Your task to perform on an android device: toggle translation in the chrome app Image 0: 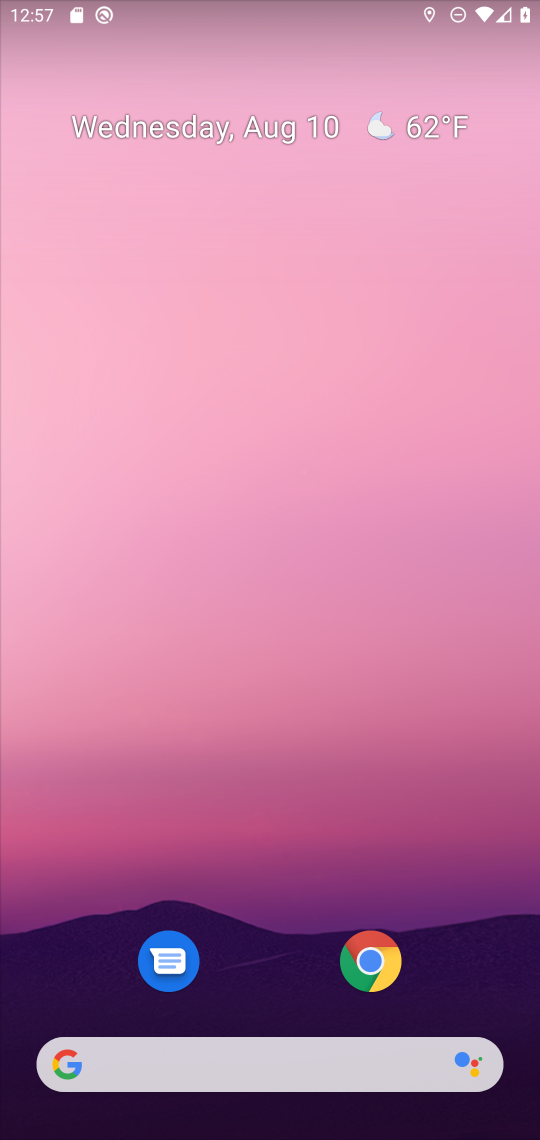
Step 0: click (378, 963)
Your task to perform on an android device: toggle translation in the chrome app Image 1: 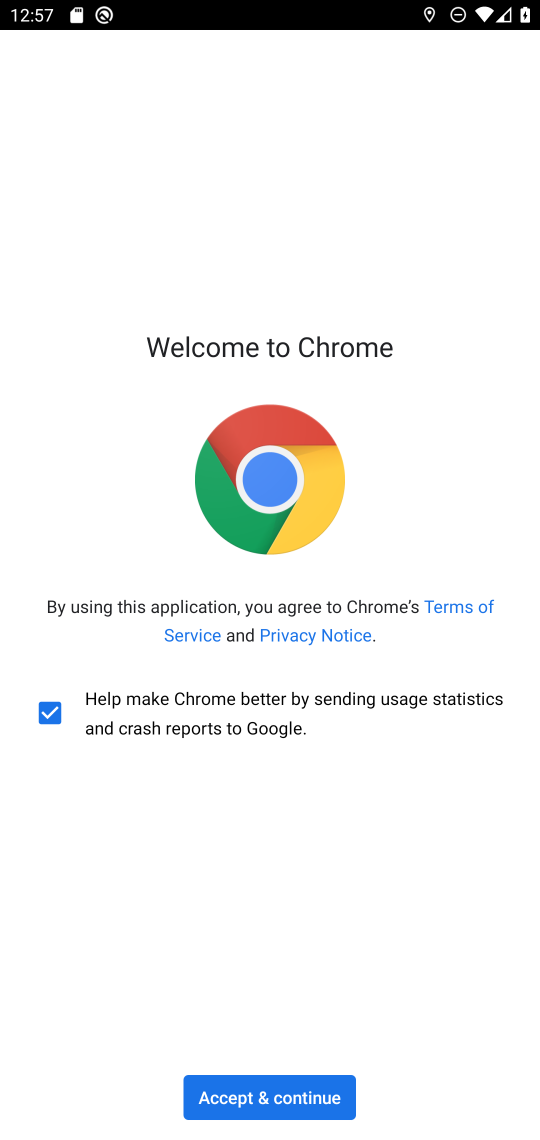
Step 1: click (278, 1095)
Your task to perform on an android device: toggle translation in the chrome app Image 2: 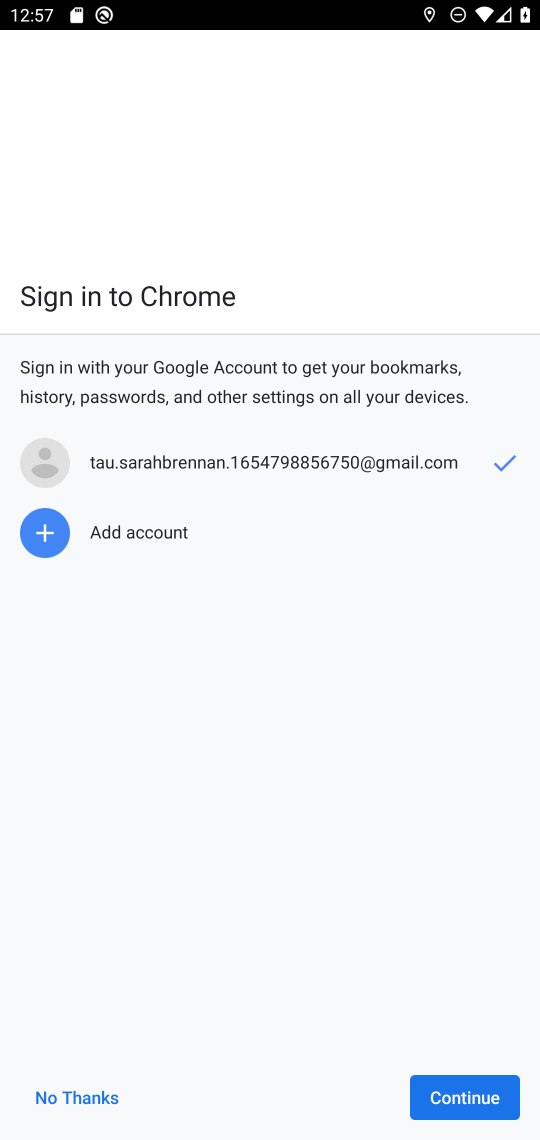
Step 2: click (449, 1105)
Your task to perform on an android device: toggle translation in the chrome app Image 3: 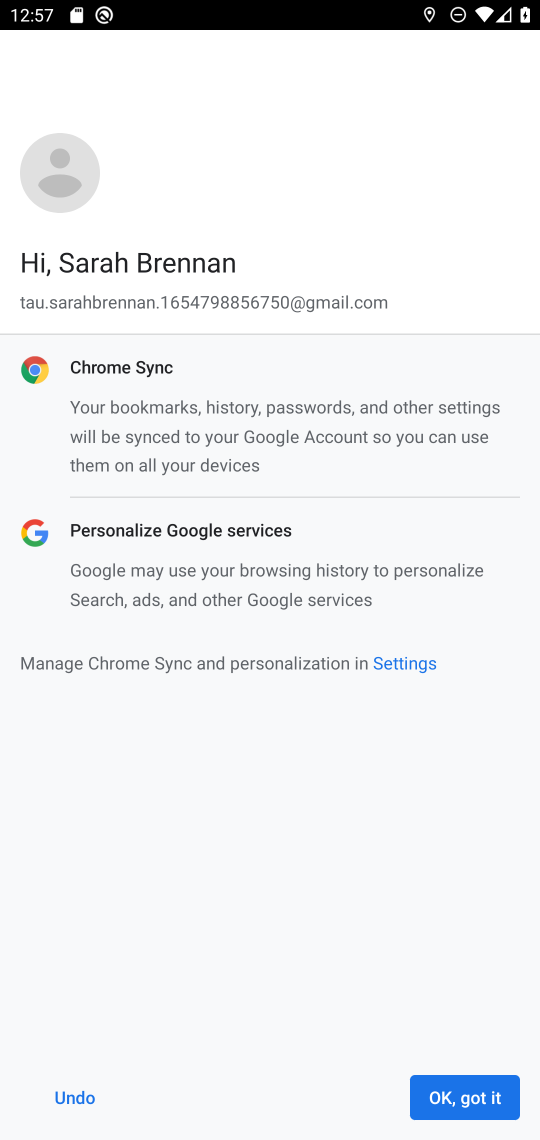
Step 3: click (449, 1105)
Your task to perform on an android device: toggle translation in the chrome app Image 4: 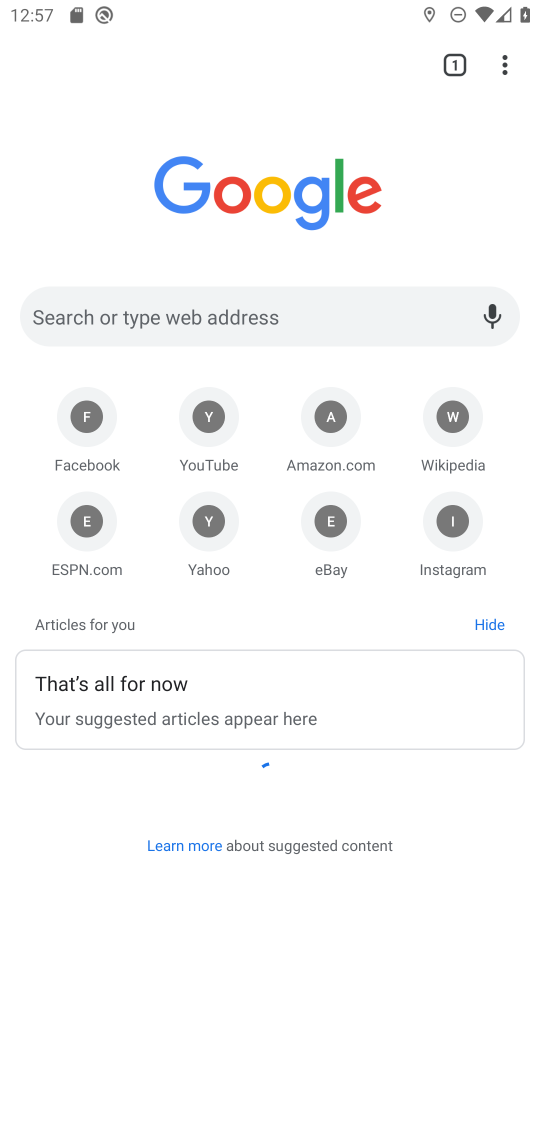
Step 4: click (508, 69)
Your task to perform on an android device: toggle translation in the chrome app Image 5: 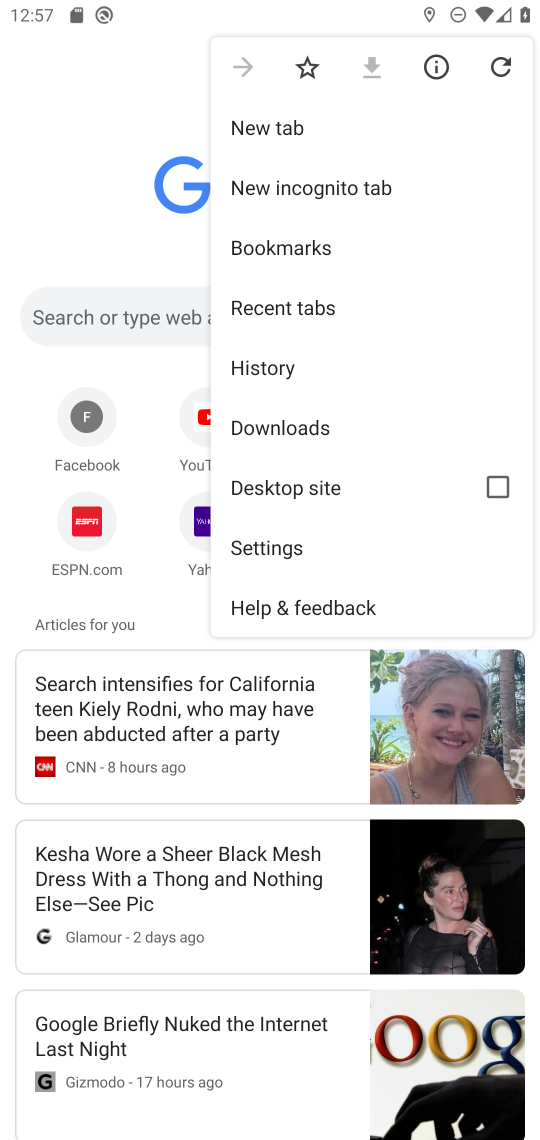
Step 5: click (264, 548)
Your task to perform on an android device: toggle translation in the chrome app Image 6: 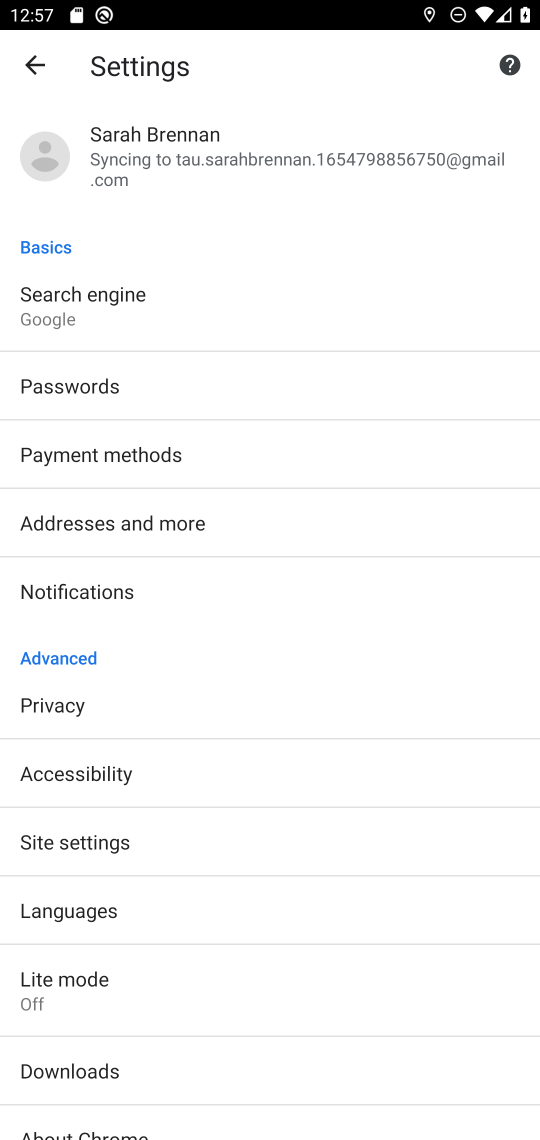
Step 6: click (91, 916)
Your task to perform on an android device: toggle translation in the chrome app Image 7: 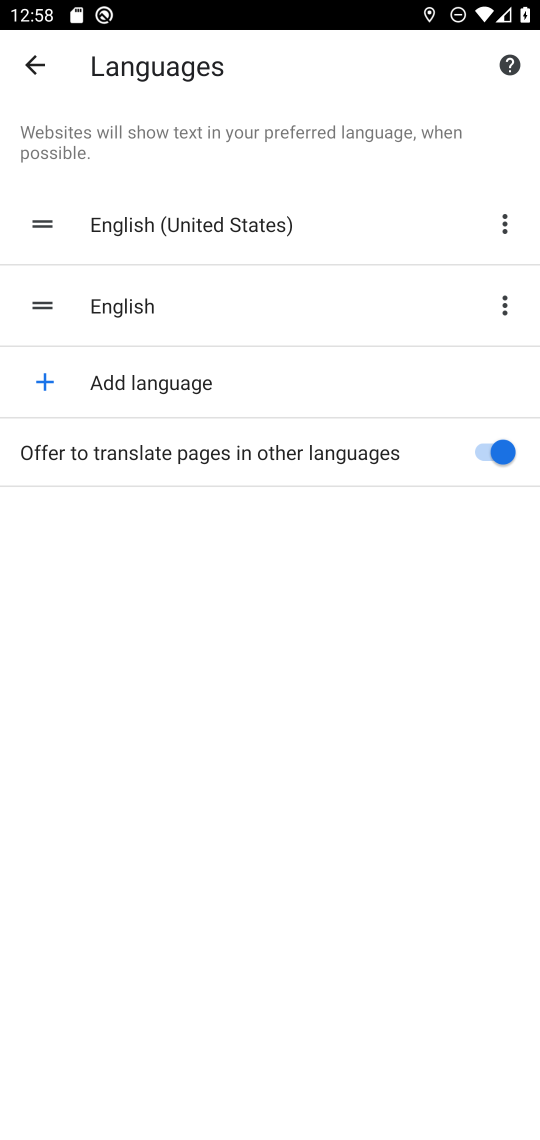
Step 7: click (514, 439)
Your task to perform on an android device: toggle translation in the chrome app Image 8: 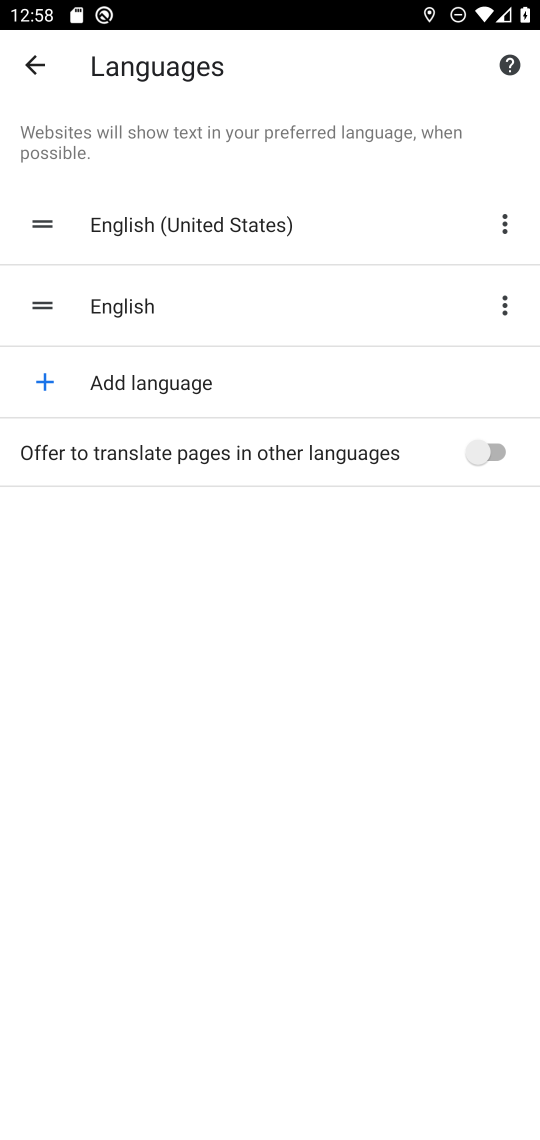
Step 8: task complete